Your task to perform on an android device: add a contact in the contacts app Image 0: 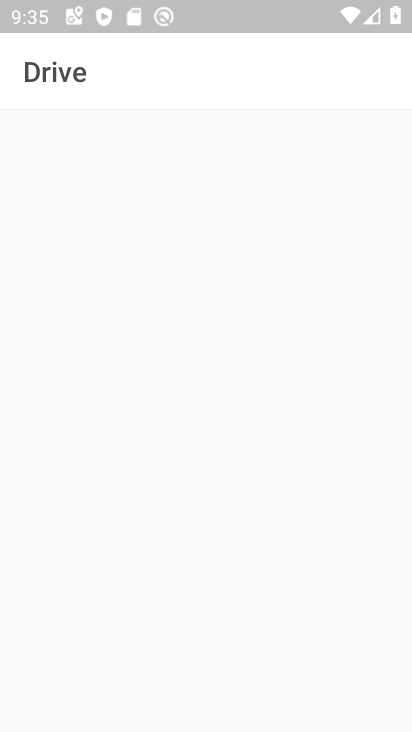
Step 0: press home button
Your task to perform on an android device: add a contact in the contacts app Image 1: 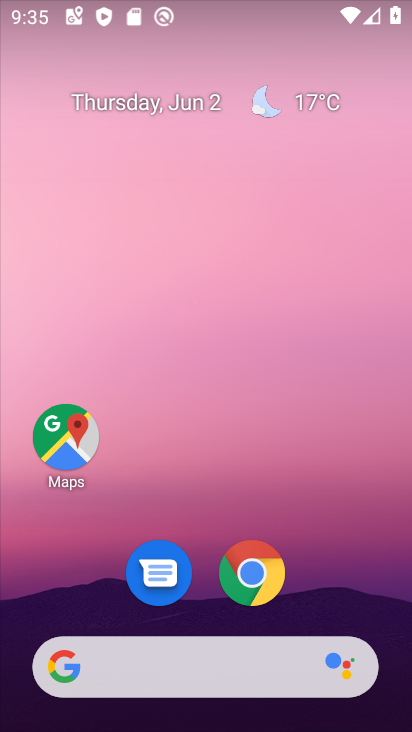
Step 1: drag from (329, 548) to (224, 80)
Your task to perform on an android device: add a contact in the contacts app Image 2: 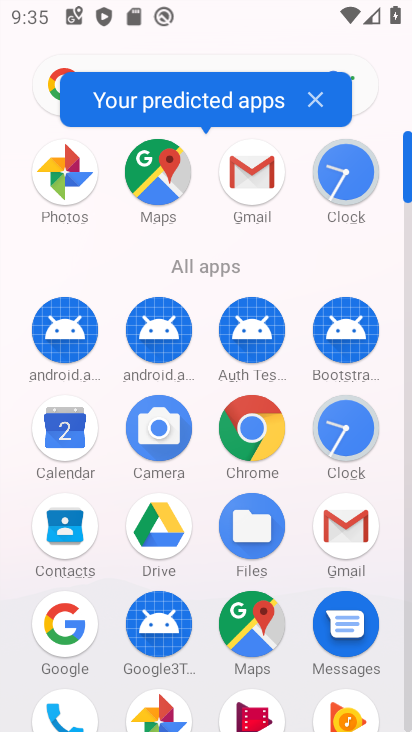
Step 2: click (65, 526)
Your task to perform on an android device: add a contact in the contacts app Image 3: 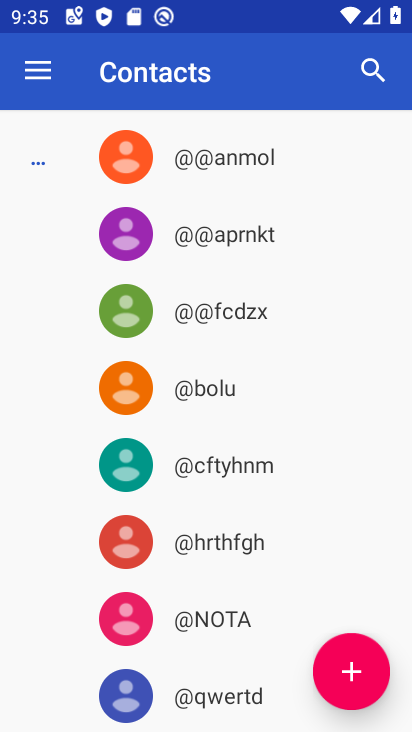
Step 3: click (353, 674)
Your task to perform on an android device: add a contact in the contacts app Image 4: 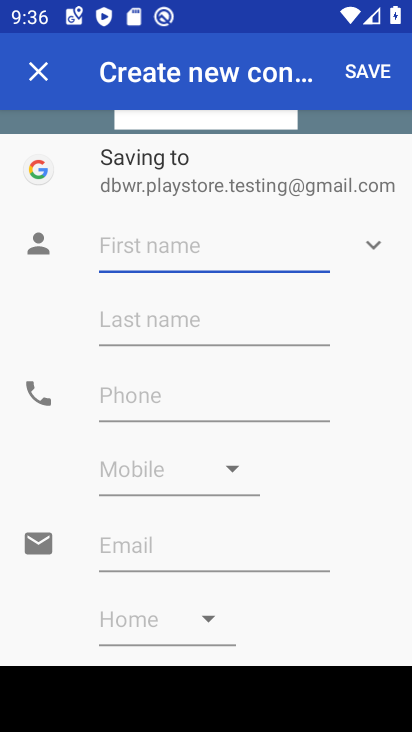
Step 4: type "Supindar"
Your task to perform on an android device: add a contact in the contacts app Image 5: 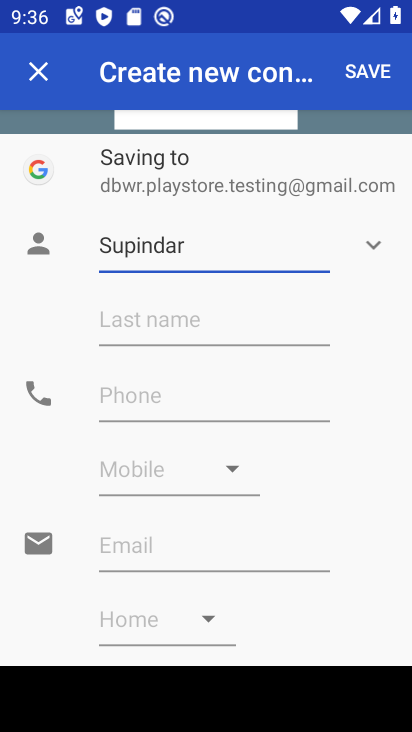
Step 5: click (127, 309)
Your task to perform on an android device: add a contact in the contacts app Image 6: 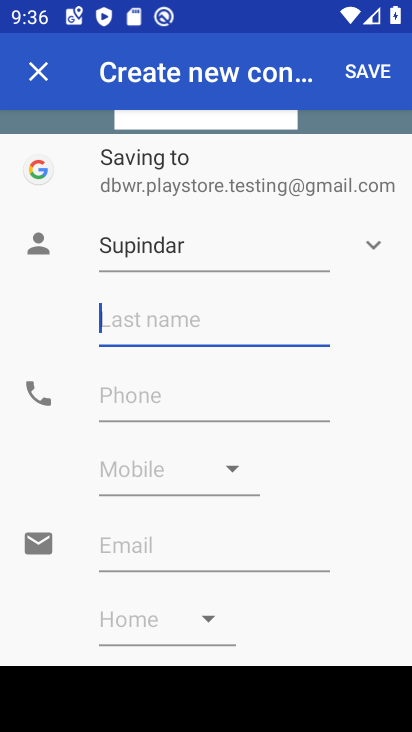
Step 6: type "Tohra"
Your task to perform on an android device: add a contact in the contacts app Image 7: 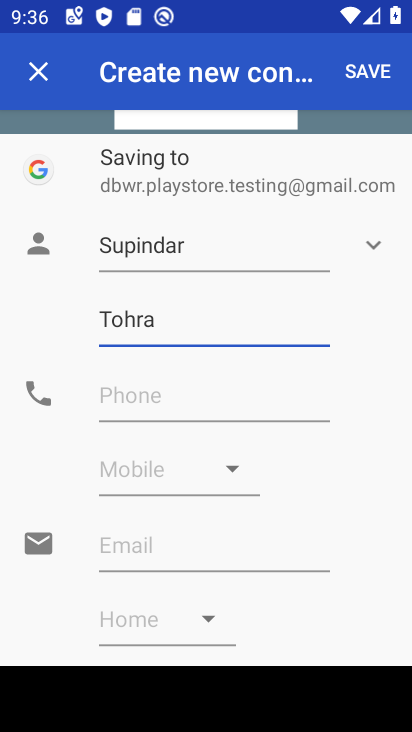
Step 7: click (152, 393)
Your task to perform on an android device: add a contact in the contacts app Image 8: 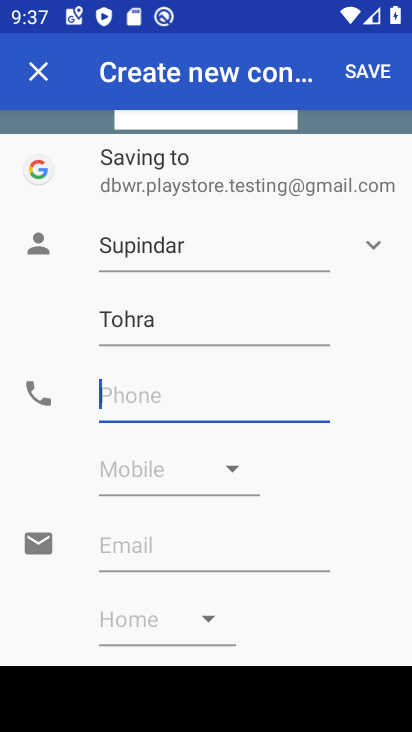
Step 8: type "0987654321"
Your task to perform on an android device: add a contact in the contacts app Image 9: 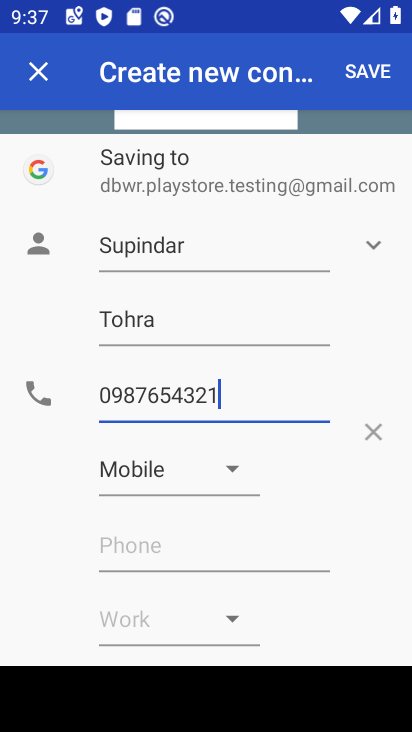
Step 9: type ""
Your task to perform on an android device: add a contact in the contacts app Image 10: 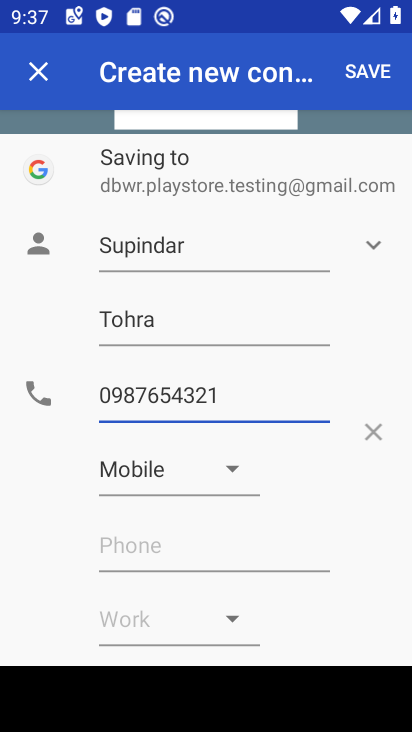
Step 10: click (367, 64)
Your task to perform on an android device: add a contact in the contacts app Image 11: 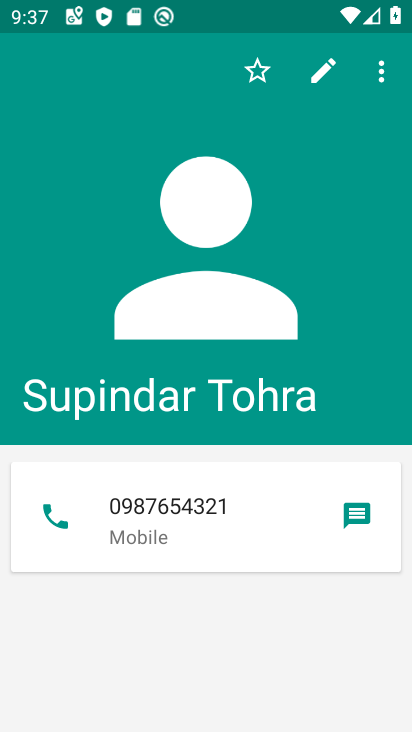
Step 11: task complete